Your task to perform on an android device: Find coffee shops on Maps Image 0: 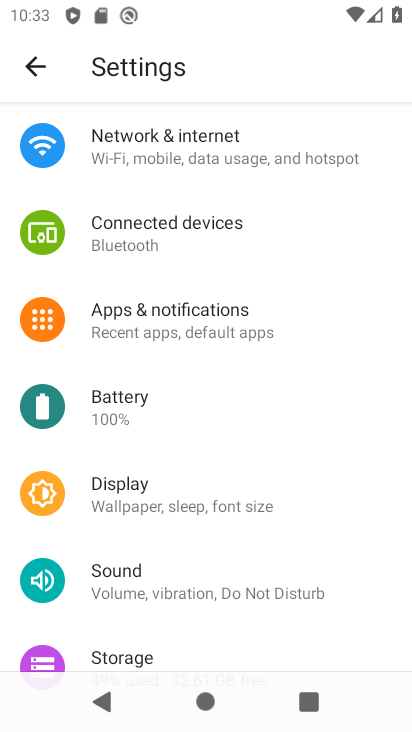
Step 0: press home button
Your task to perform on an android device: Find coffee shops on Maps Image 1: 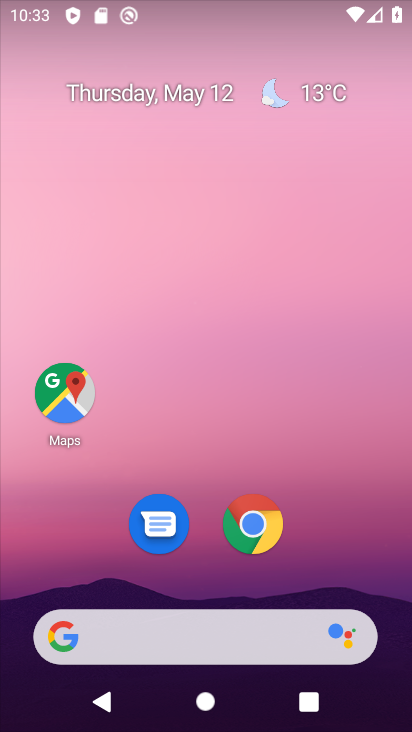
Step 1: click (76, 386)
Your task to perform on an android device: Find coffee shops on Maps Image 2: 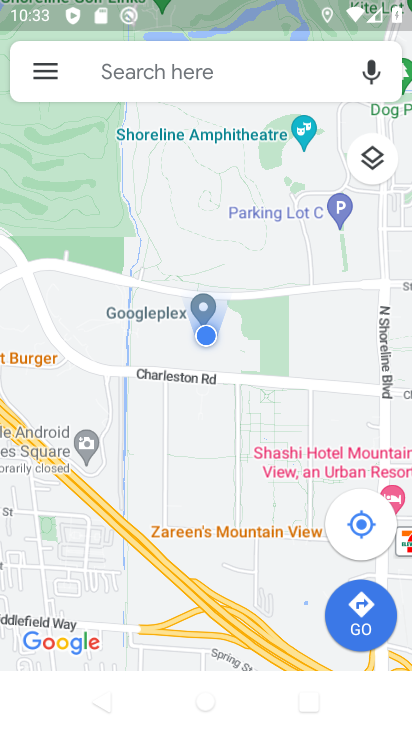
Step 2: click (175, 65)
Your task to perform on an android device: Find coffee shops on Maps Image 3: 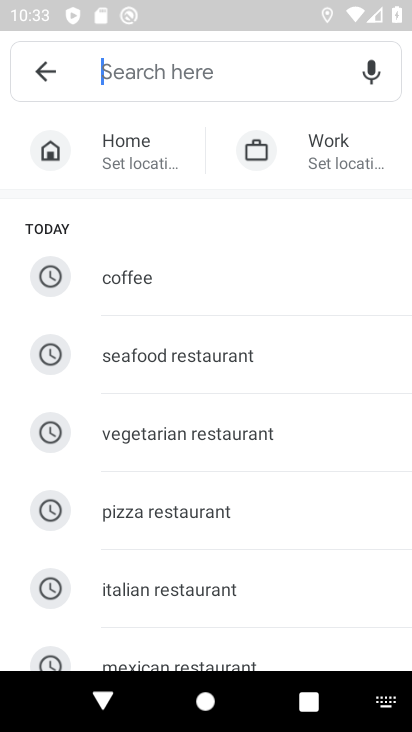
Step 3: click (134, 278)
Your task to perform on an android device: Find coffee shops on Maps Image 4: 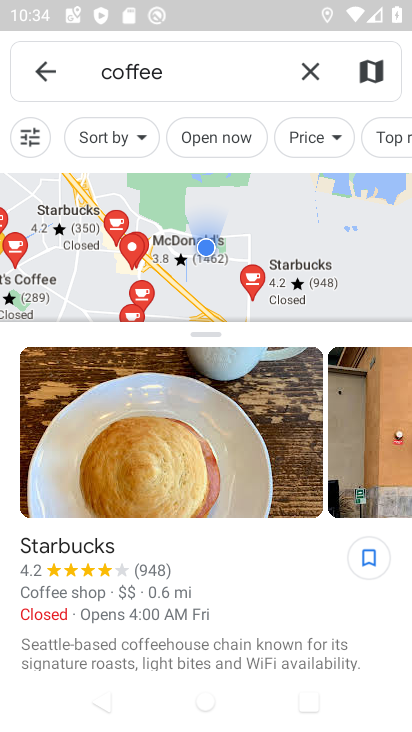
Step 4: task complete